Your task to perform on an android device: remove spam from my inbox in the gmail app Image 0: 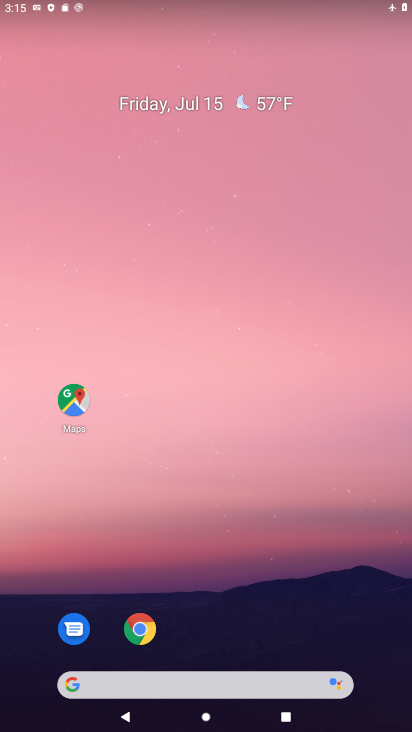
Step 0: drag from (190, 617) to (86, 119)
Your task to perform on an android device: remove spam from my inbox in the gmail app Image 1: 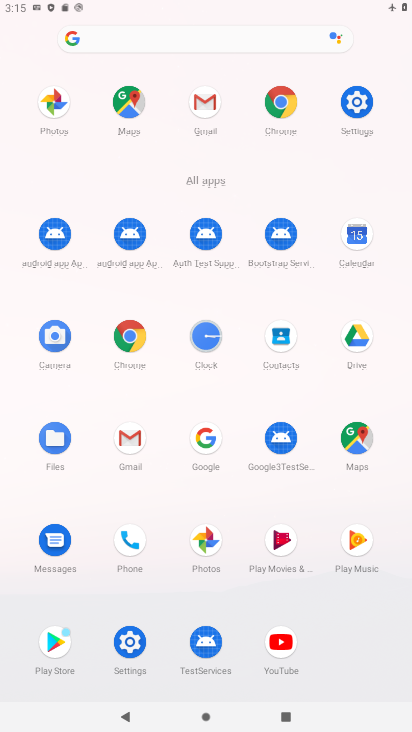
Step 1: click (133, 434)
Your task to perform on an android device: remove spam from my inbox in the gmail app Image 2: 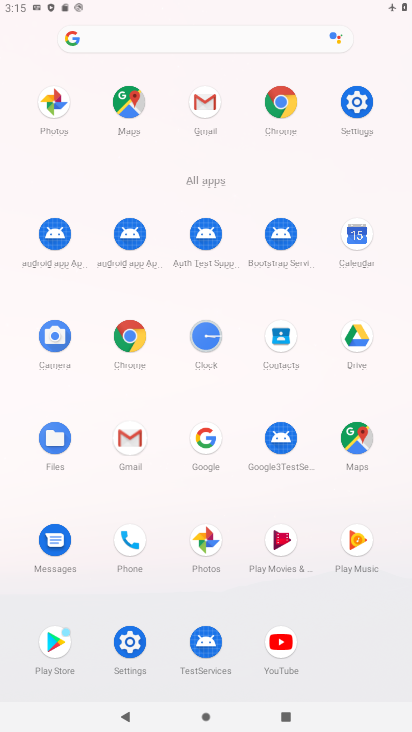
Step 2: click (133, 434)
Your task to perform on an android device: remove spam from my inbox in the gmail app Image 3: 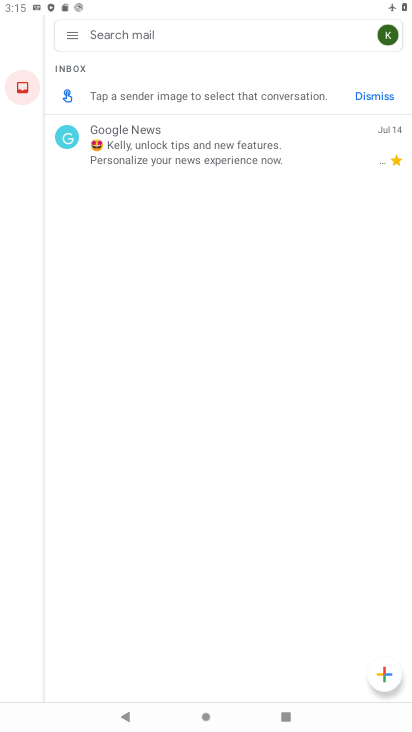
Step 3: click (74, 29)
Your task to perform on an android device: remove spam from my inbox in the gmail app Image 4: 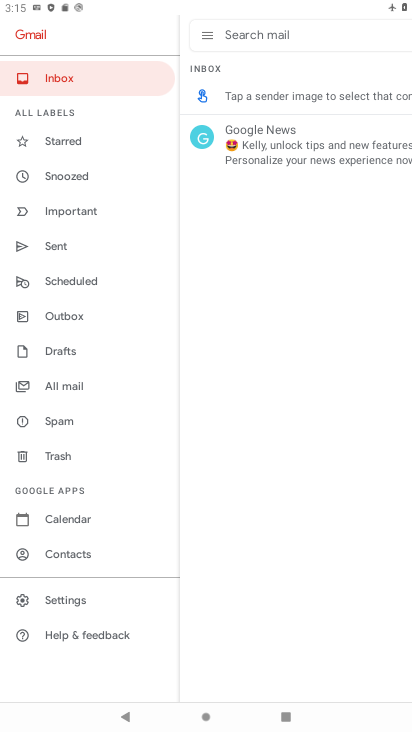
Step 4: click (48, 429)
Your task to perform on an android device: remove spam from my inbox in the gmail app Image 5: 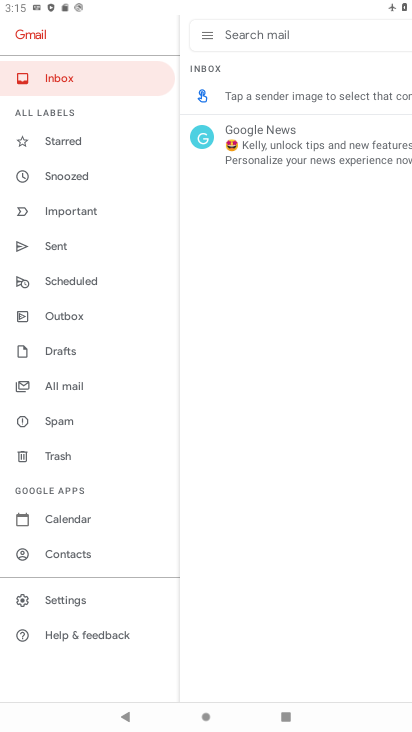
Step 5: click (55, 424)
Your task to perform on an android device: remove spam from my inbox in the gmail app Image 6: 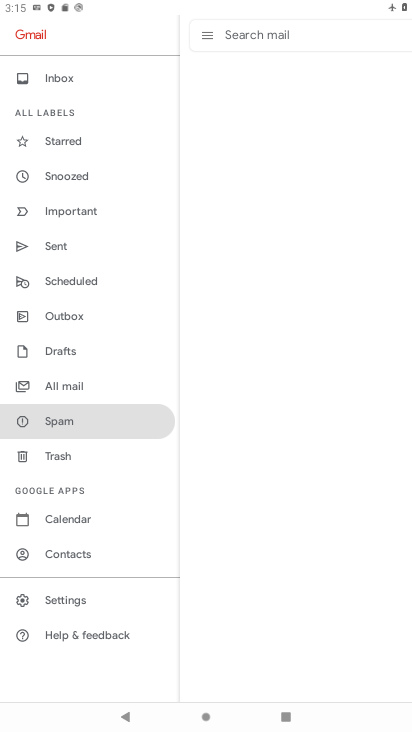
Step 6: click (59, 420)
Your task to perform on an android device: remove spam from my inbox in the gmail app Image 7: 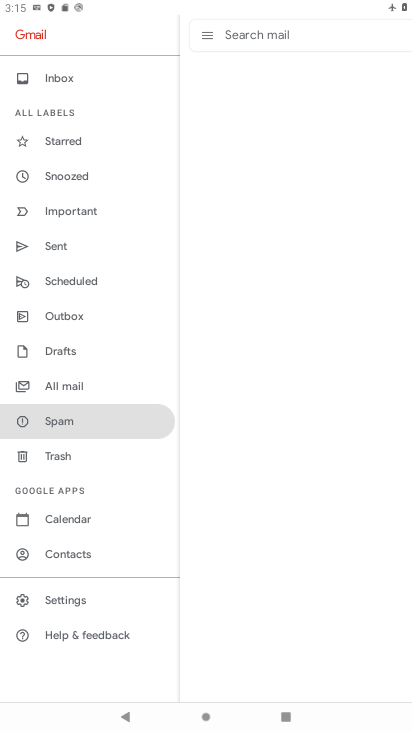
Step 7: click (59, 420)
Your task to perform on an android device: remove spam from my inbox in the gmail app Image 8: 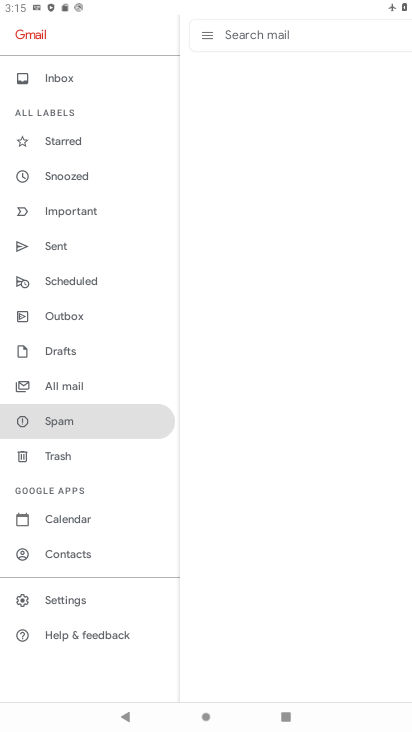
Step 8: click (62, 421)
Your task to perform on an android device: remove spam from my inbox in the gmail app Image 9: 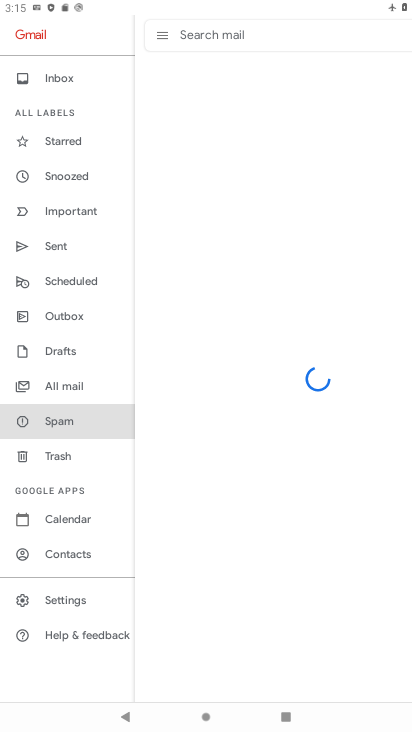
Step 9: click (62, 421)
Your task to perform on an android device: remove spam from my inbox in the gmail app Image 10: 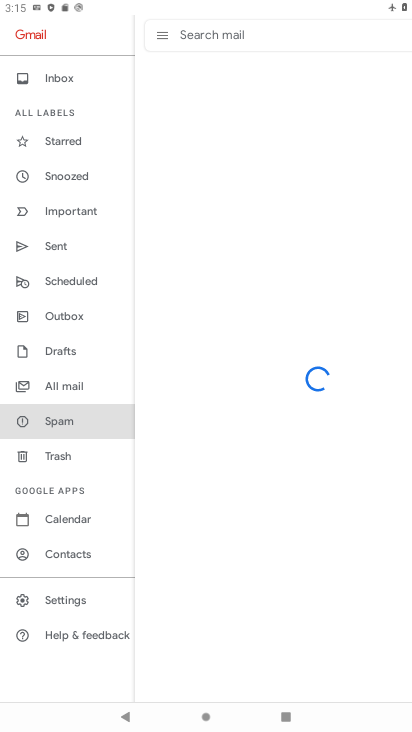
Step 10: click (62, 421)
Your task to perform on an android device: remove spam from my inbox in the gmail app Image 11: 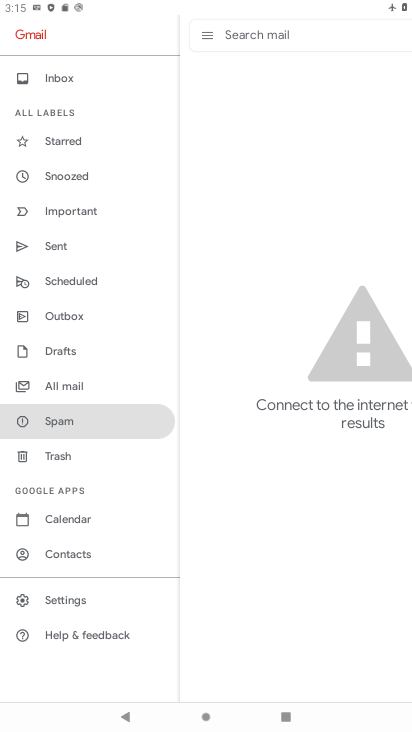
Step 11: task complete